Your task to perform on an android device: set the stopwatch Image 0: 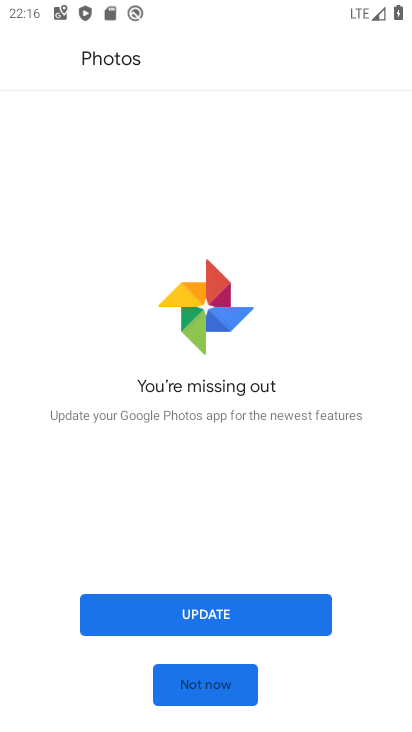
Step 0: press home button
Your task to perform on an android device: set the stopwatch Image 1: 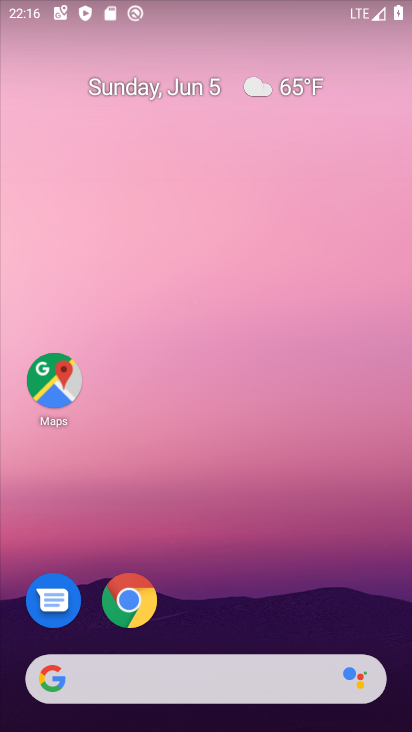
Step 1: drag from (279, 494) to (254, 135)
Your task to perform on an android device: set the stopwatch Image 2: 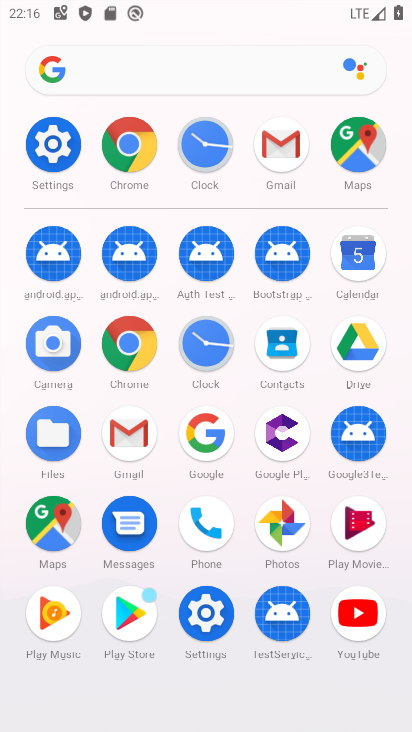
Step 2: click (205, 148)
Your task to perform on an android device: set the stopwatch Image 3: 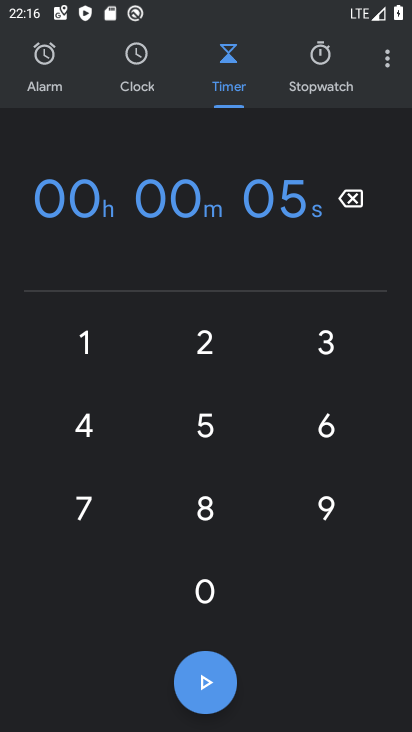
Step 3: click (297, 82)
Your task to perform on an android device: set the stopwatch Image 4: 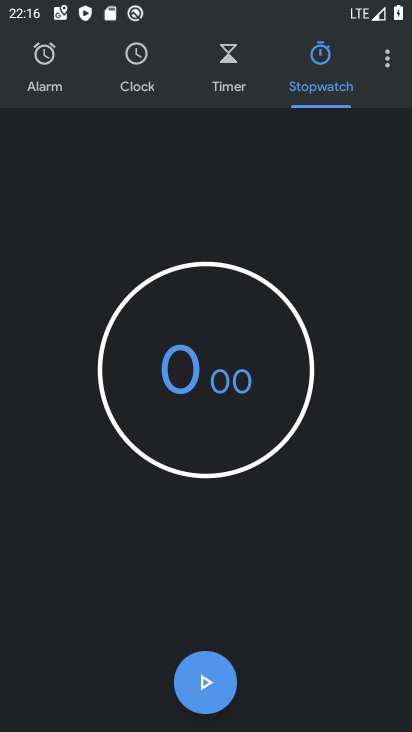
Step 4: click (219, 672)
Your task to perform on an android device: set the stopwatch Image 5: 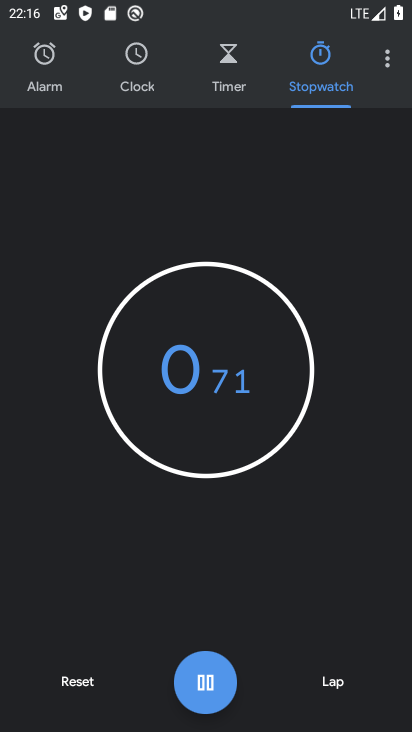
Step 5: click (218, 671)
Your task to perform on an android device: set the stopwatch Image 6: 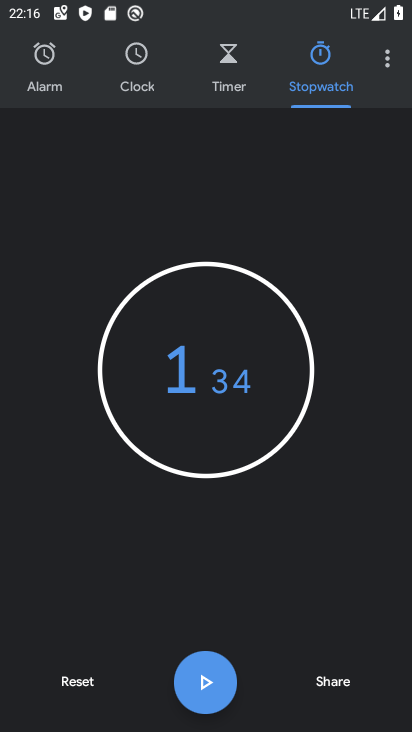
Step 6: task complete